Your task to perform on an android device: Open Chrome and go to settings Image 0: 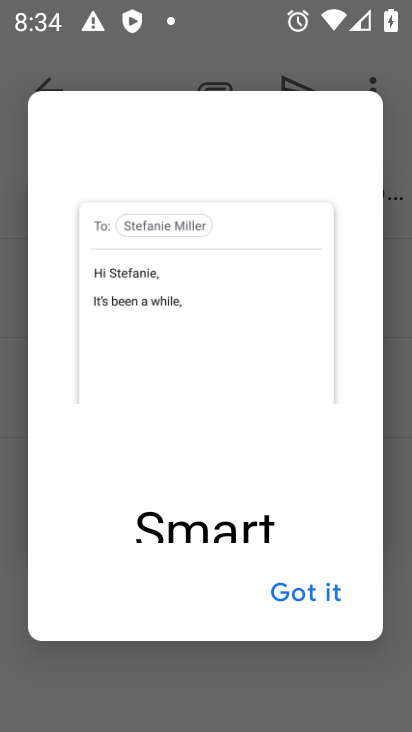
Step 0: press home button
Your task to perform on an android device: Open Chrome and go to settings Image 1: 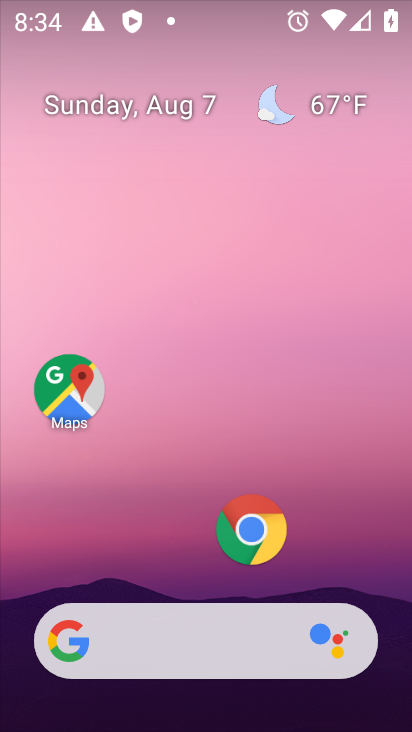
Step 1: click (262, 530)
Your task to perform on an android device: Open Chrome and go to settings Image 2: 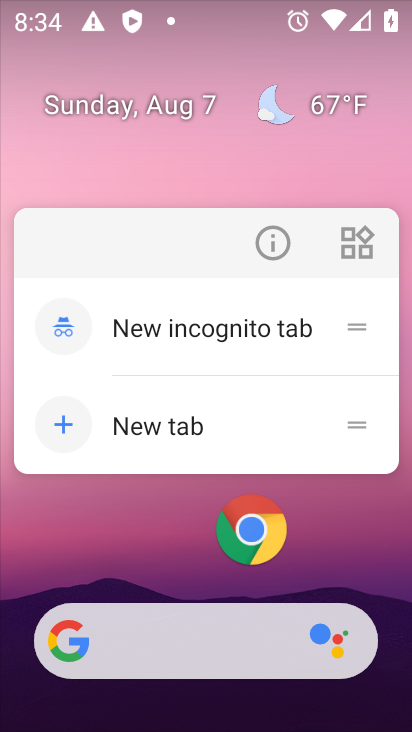
Step 2: click (229, 554)
Your task to perform on an android device: Open Chrome and go to settings Image 3: 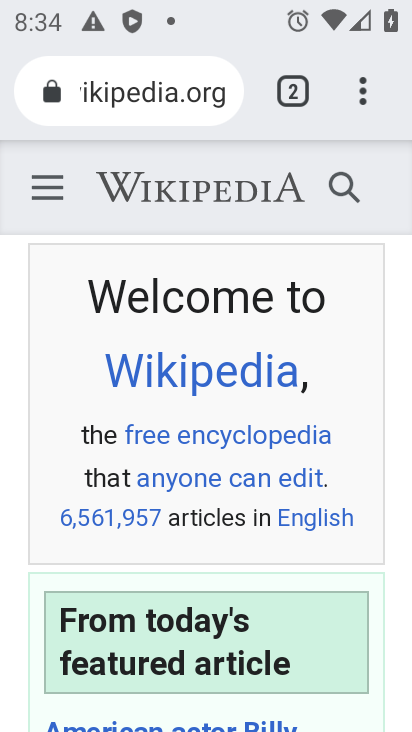
Step 3: click (359, 103)
Your task to perform on an android device: Open Chrome and go to settings Image 4: 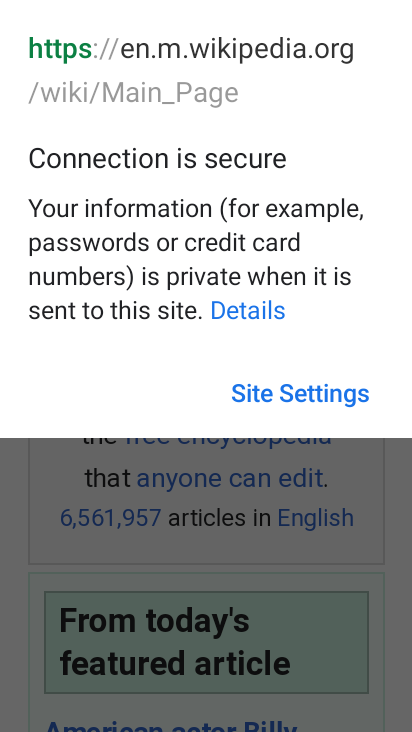
Step 4: drag from (281, 538) to (286, 475)
Your task to perform on an android device: Open Chrome and go to settings Image 5: 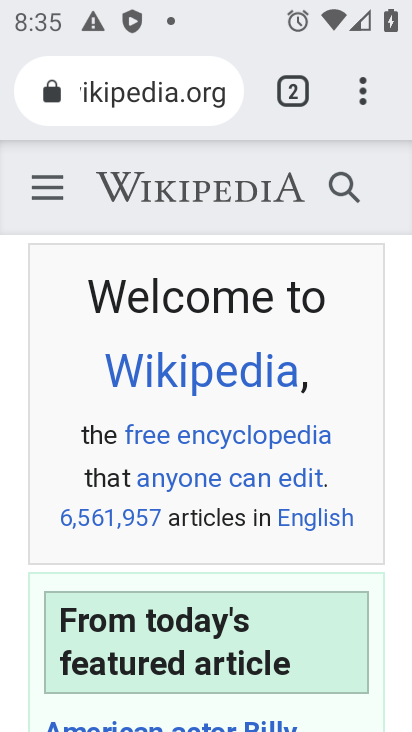
Step 5: click (364, 102)
Your task to perform on an android device: Open Chrome and go to settings Image 6: 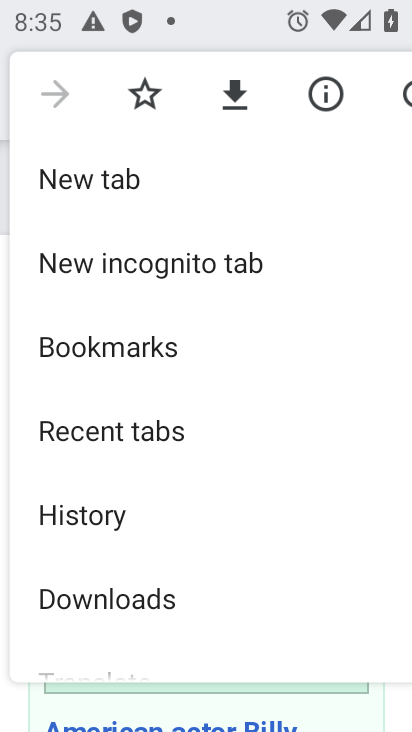
Step 6: drag from (138, 534) to (191, 123)
Your task to perform on an android device: Open Chrome and go to settings Image 7: 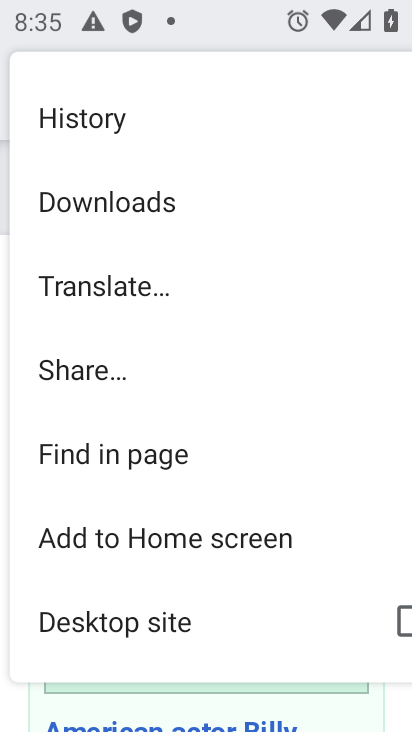
Step 7: drag from (143, 562) to (165, 229)
Your task to perform on an android device: Open Chrome and go to settings Image 8: 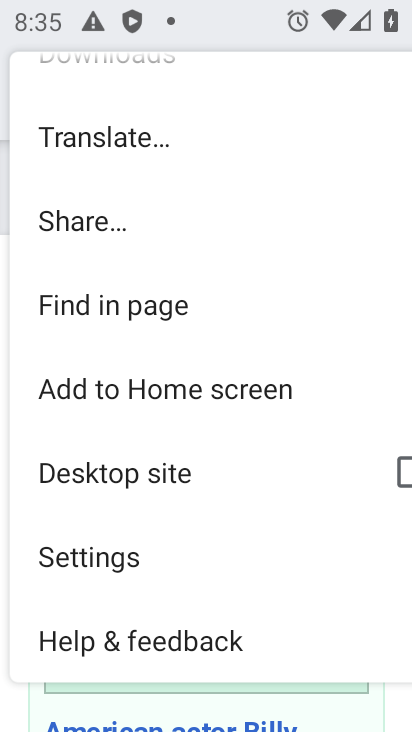
Step 8: click (112, 567)
Your task to perform on an android device: Open Chrome and go to settings Image 9: 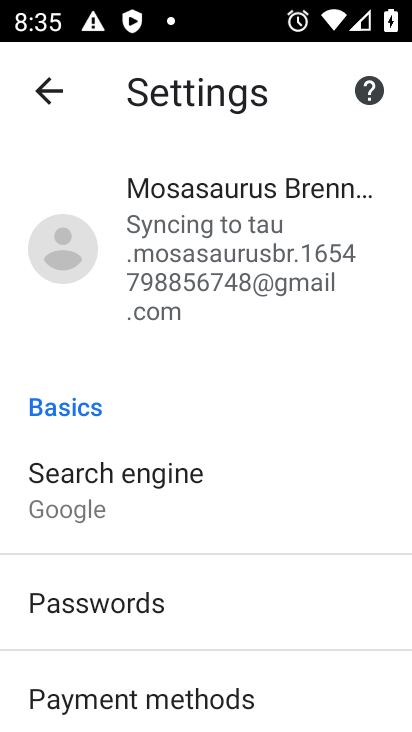
Step 9: task complete